Your task to perform on an android device: turn on location history Image 0: 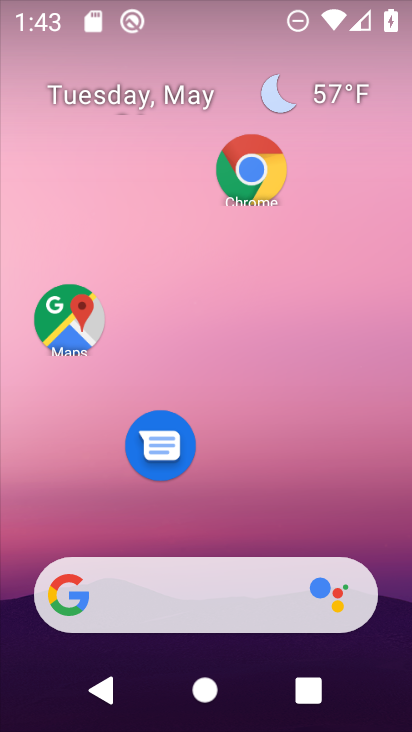
Step 0: drag from (230, 723) to (221, 79)
Your task to perform on an android device: turn on location history Image 1: 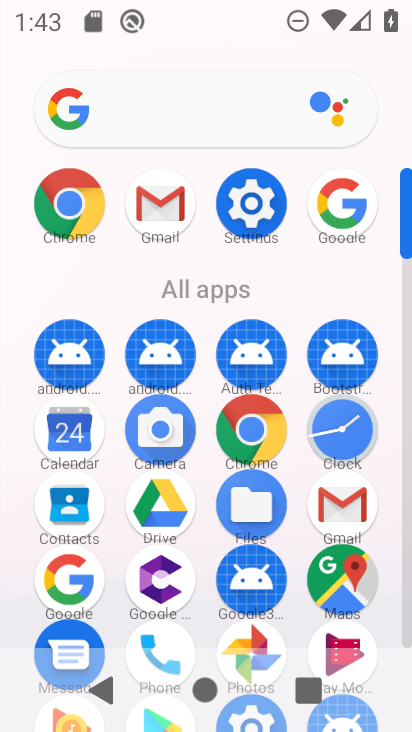
Step 1: click (257, 194)
Your task to perform on an android device: turn on location history Image 2: 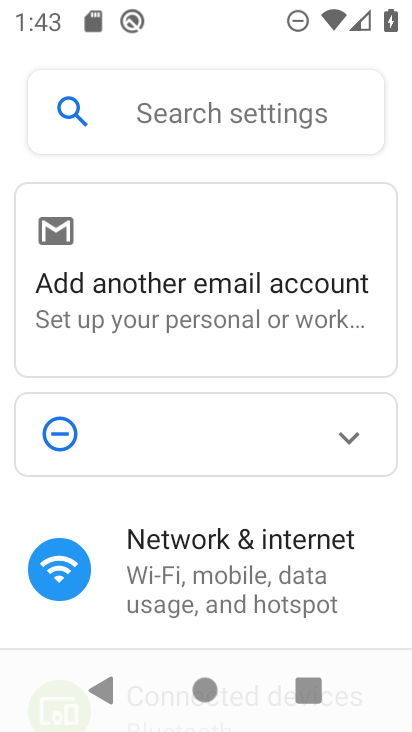
Step 2: drag from (216, 581) to (217, 243)
Your task to perform on an android device: turn on location history Image 3: 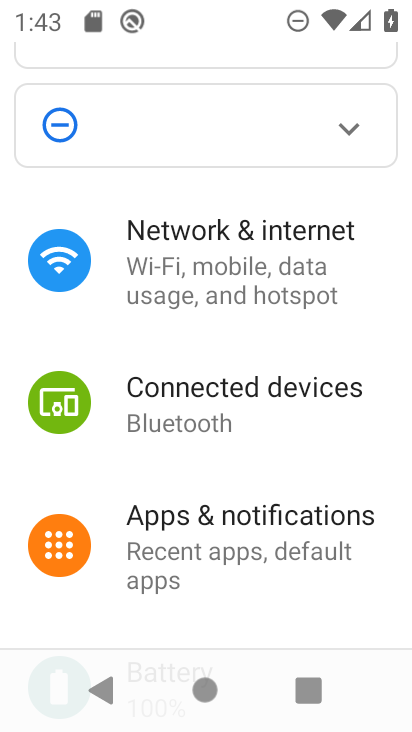
Step 3: drag from (198, 572) to (210, 185)
Your task to perform on an android device: turn on location history Image 4: 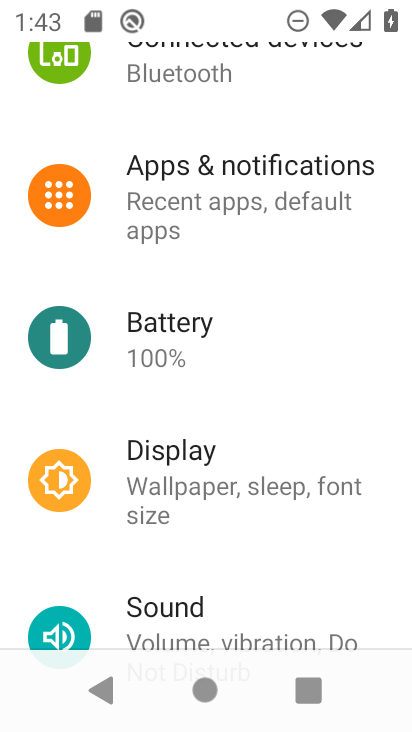
Step 4: drag from (193, 560) to (193, 246)
Your task to perform on an android device: turn on location history Image 5: 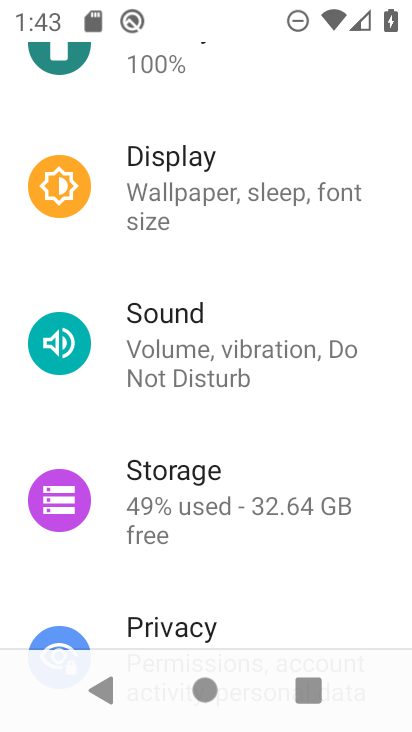
Step 5: drag from (213, 591) to (216, 253)
Your task to perform on an android device: turn on location history Image 6: 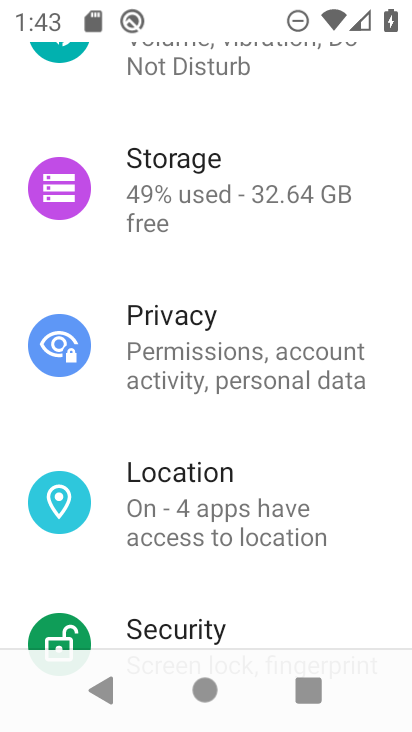
Step 6: click (204, 511)
Your task to perform on an android device: turn on location history Image 7: 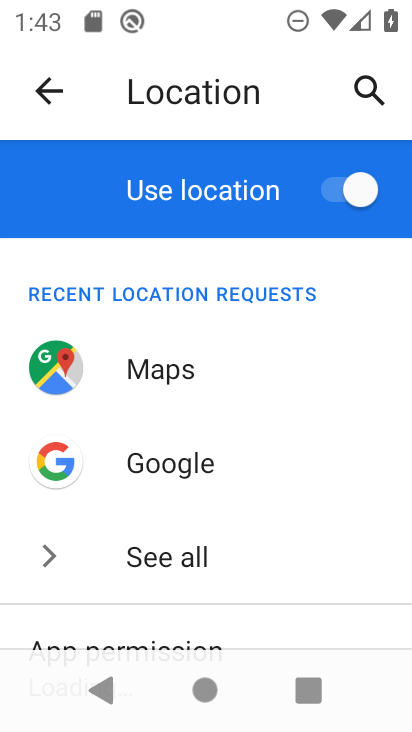
Step 7: drag from (129, 629) to (151, 298)
Your task to perform on an android device: turn on location history Image 8: 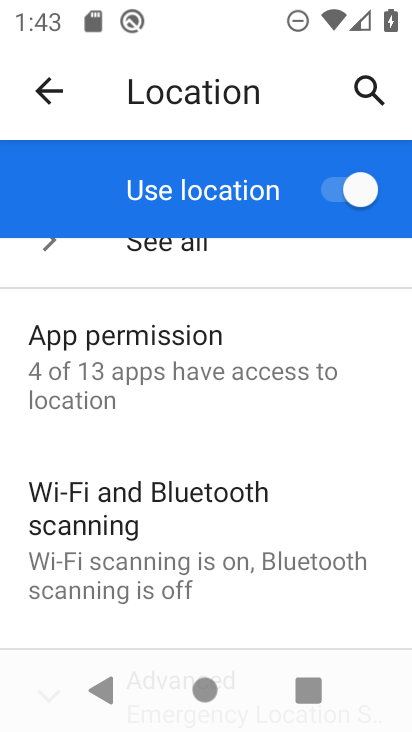
Step 8: drag from (158, 612) to (194, 296)
Your task to perform on an android device: turn on location history Image 9: 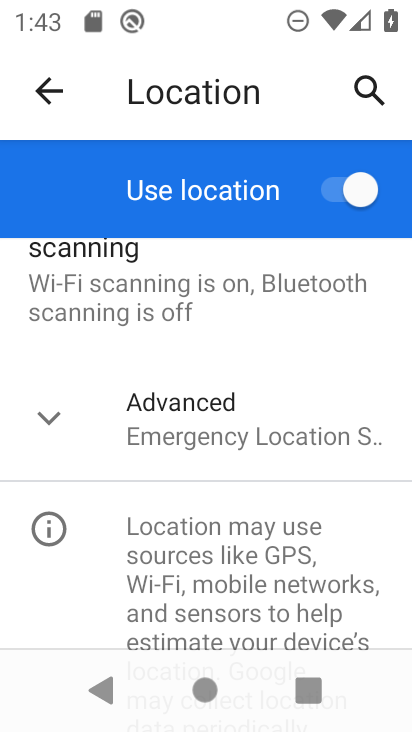
Step 9: click (205, 423)
Your task to perform on an android device: turn on location history Image 10: 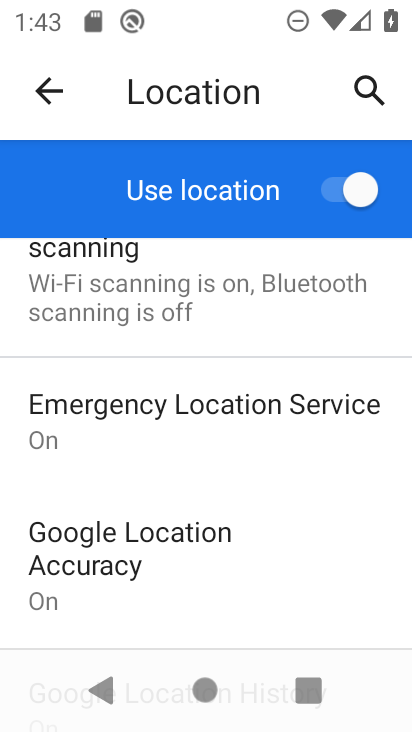
Step 10: click (126, 543)
Your task to perform on an android device: turn on location history Image 11: 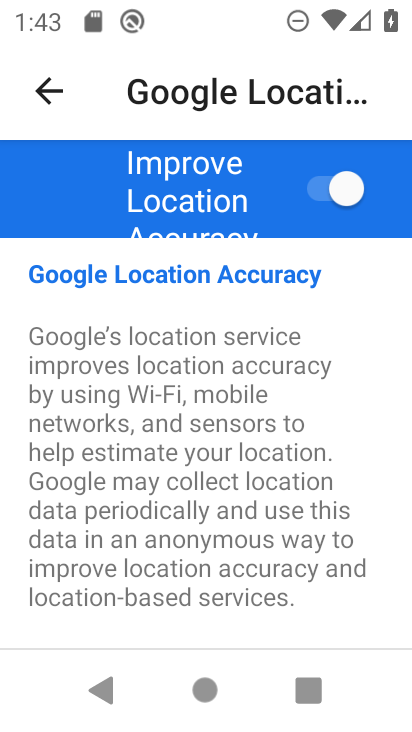
Step 11: task complete